Your task to perform on an android device: refresh tabs in the chrome app Image 0: 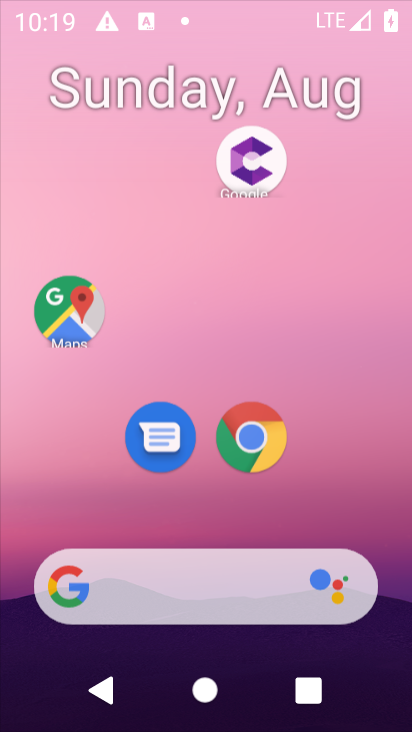
Step 0: press home button
Your task to perform on an android device: refresh tabs in the chrome app Image 1: 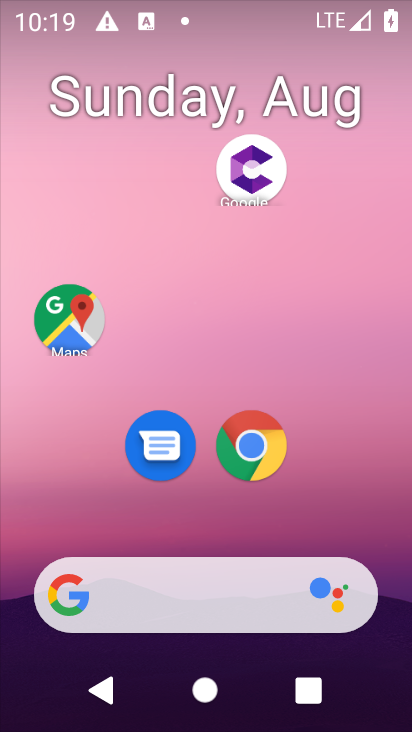
Step 1: click (246, 442)
Your task to perform on an android device: refresh tabs in the chrome app Image 2: 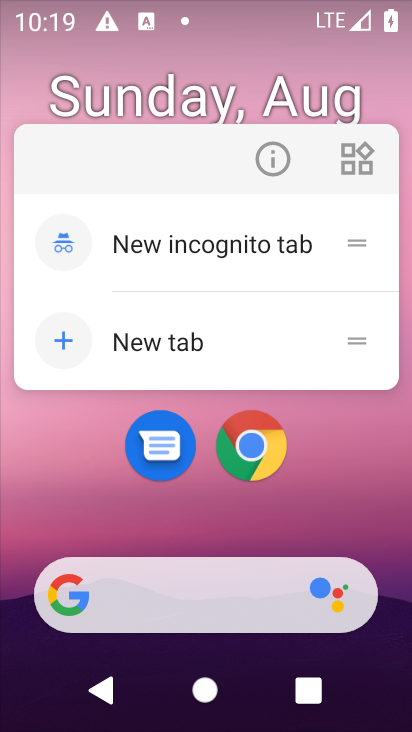
Step 2: click (309, 495)
Your task to perform on an android device: refresh tabs in the chrome app Image 3: 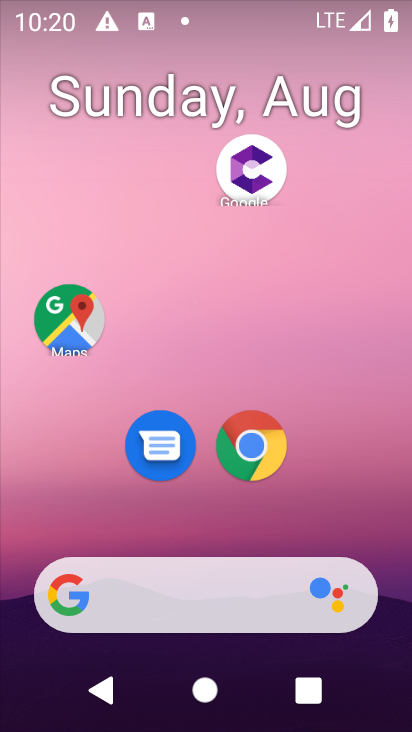
Step 3: drag from (342, 530) to (373, 0)
Your task to perform on an android device: refresh tabs in the chrome app Image 4: 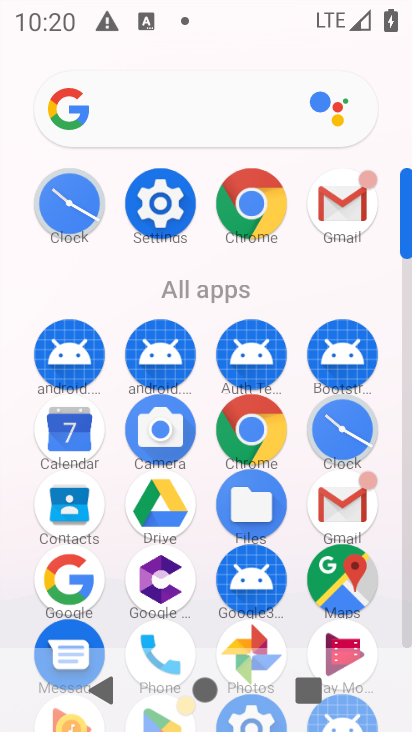
Step 4: click (255, 205)
Your task to perform on an android device: refresh tabs in the chrome app Image 5: 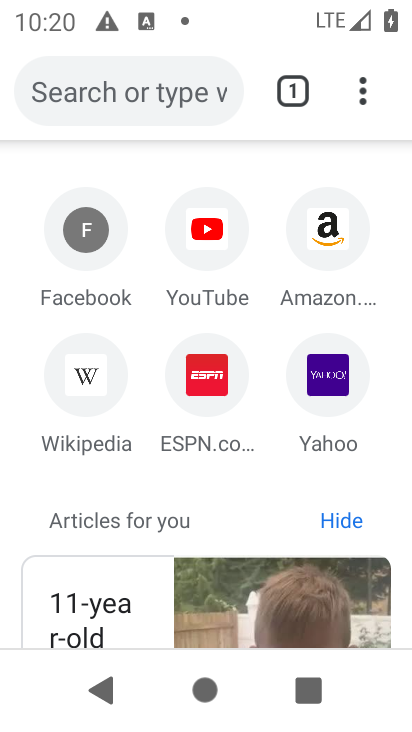
Step 5: click (369, 89)
Your task to perform on an android device: refresh tabs in the chrome app Image 6: 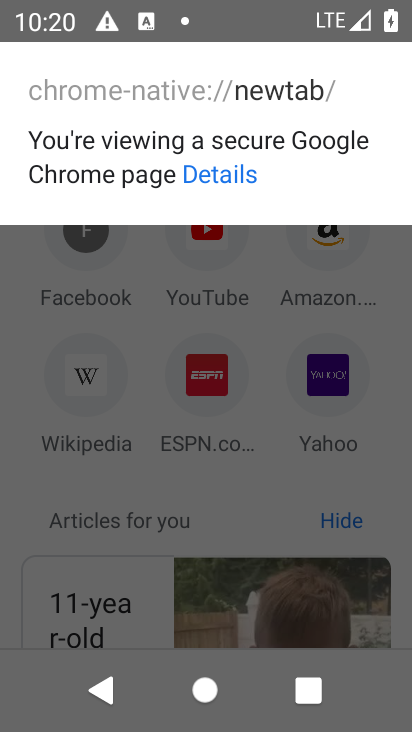
Step 6: click (306, 317)
Your task to perform on an android device: refresh tabs in the chrome app Image 7: 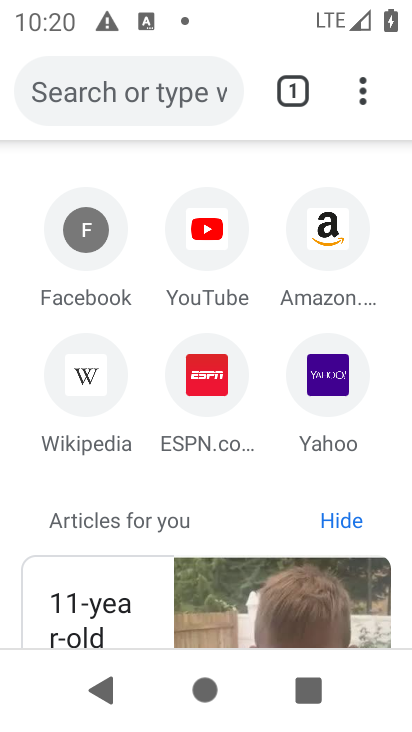
Step 7: click (352, 92)
Your task to perform on an android device: refresh tabs in the chrome app Image 8: 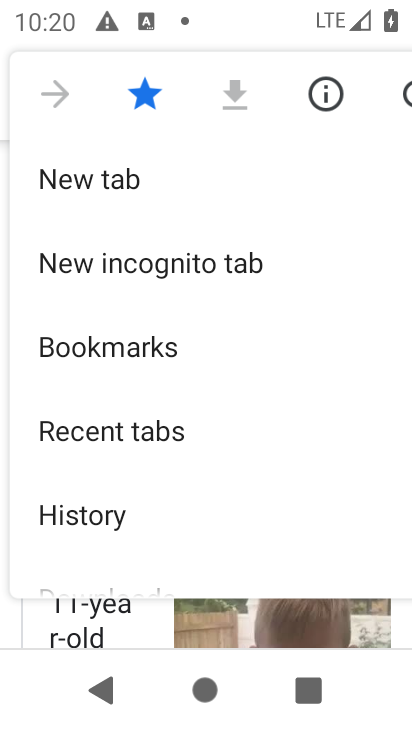
Step 8: click (395, 92)
Your task to perform on an android device: refresh tabs in the chrome app Image 9: 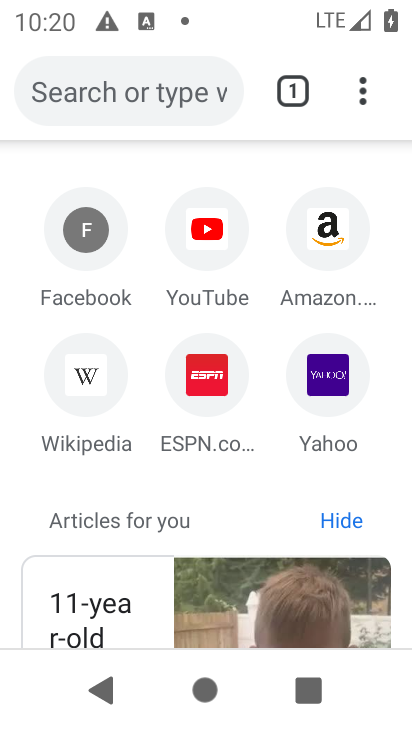
Step 9: task complete